Your task to perform on an android device: read, delete, or share a saved page in the chrome app Image 0: 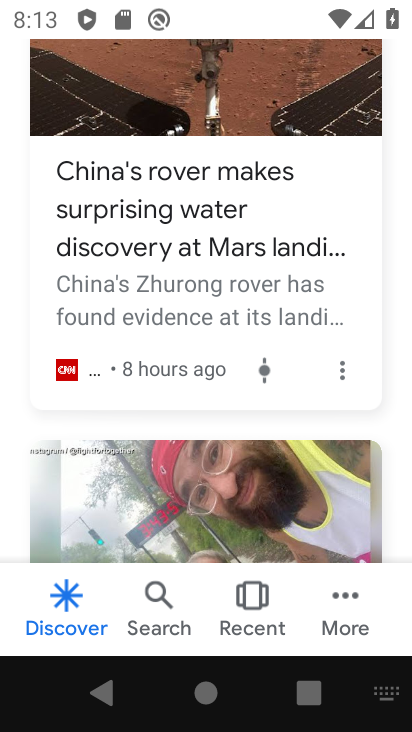
Step 0: click (353, 317)
Your task to perform on an android device: read, delete, or share a saved page in the chrome app Image 1: 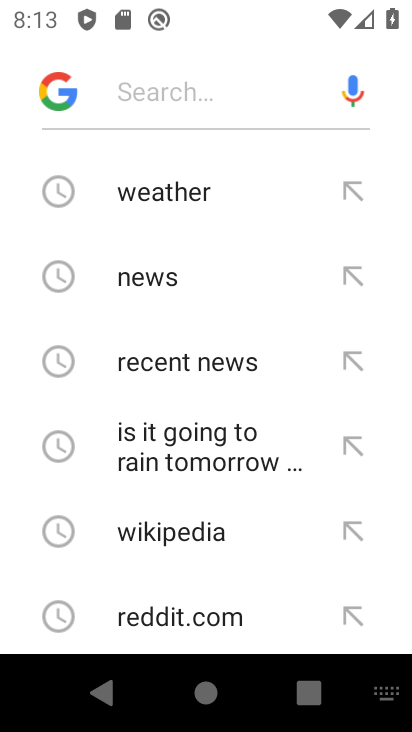
Step 1: click (152, 88)
Your task to perform on an android device: read, delete, or share a saved page in the chrome app Image 2: 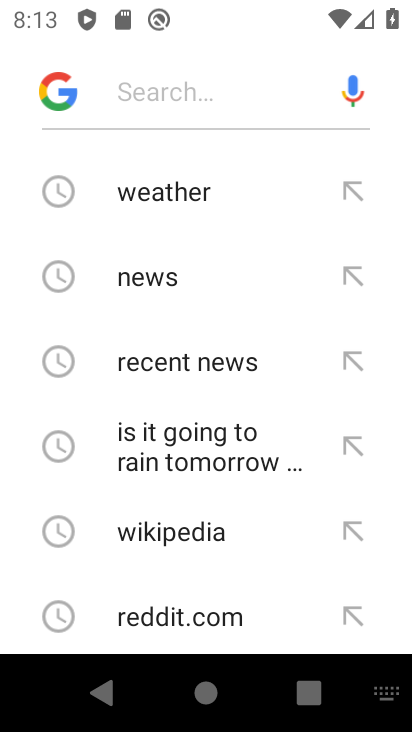
Step 2: click (150, 108)
Your task to perform on an android device: read, delete, or share a saved page in the chrome app Image 3: 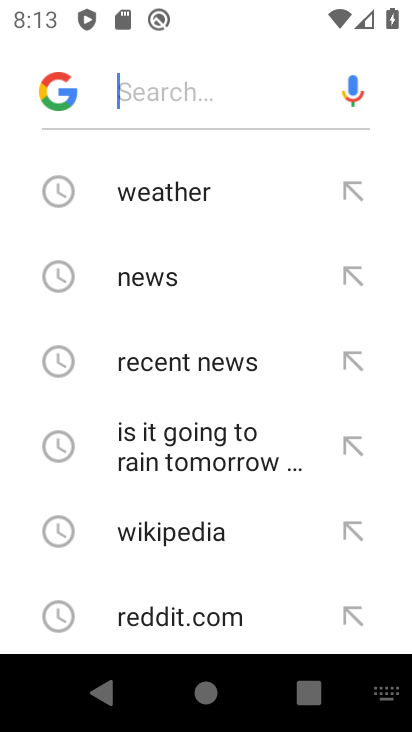
Step 3: click (150, 108)
Your task to perform on an android device: read, delete, or share a saved page in the chrome app Image 4: 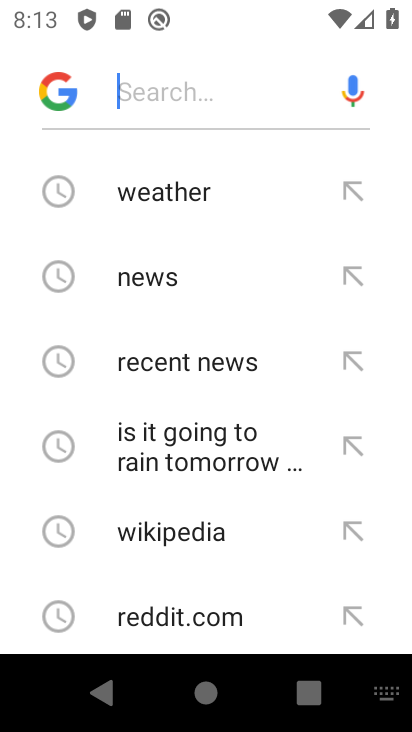
Step 4: click (150, 108)
Your task to perform on an android device: read, delete, or share a saved page in the chrome app Image 5: 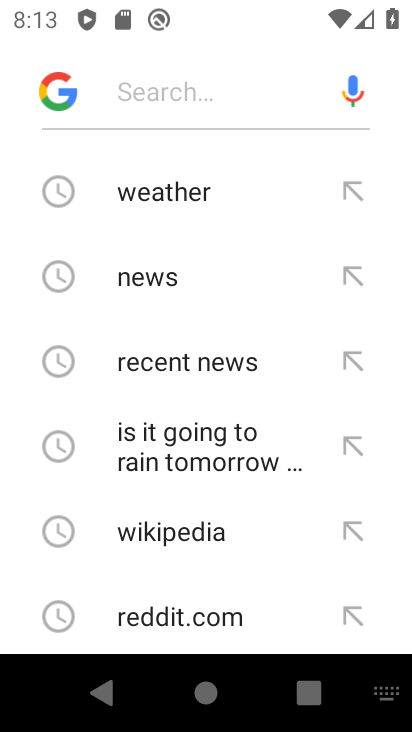
Step 5: click (150, 108)
Your task to perform on an android device: read, delete, or share a saved page in the chrome app Image 6: 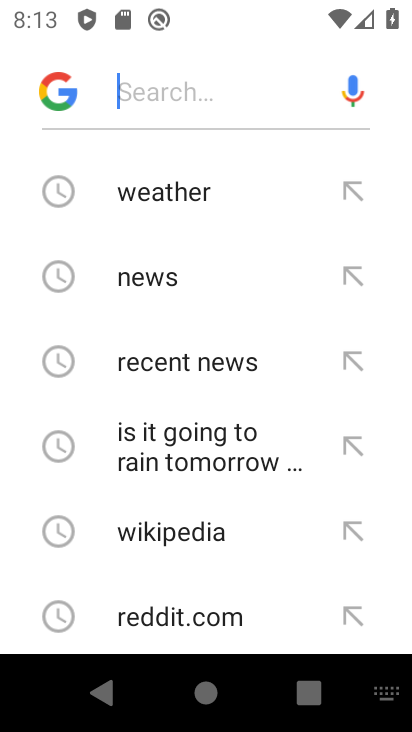
Step 6: press back button
Your task to perform on an android device: read, delete, or share a saved page in the chrome app Image 7: 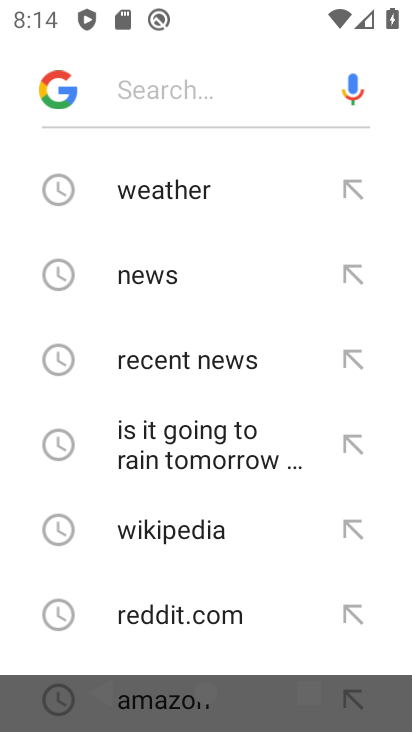
Step 7: press back button
Your task to perform on an android device: read, delete, or share a saved page in the chrome app Image 8: 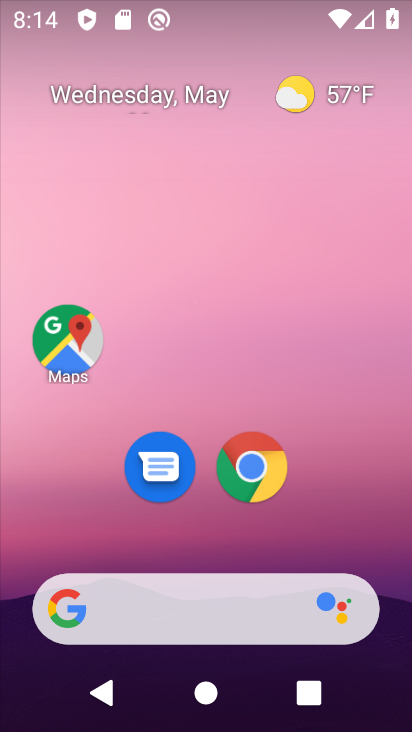
Step 8: drag from (388, 649) to (153, 10)
Your task to perform on an android device: read, delete, or share a saved page in the chrome app Image 9: 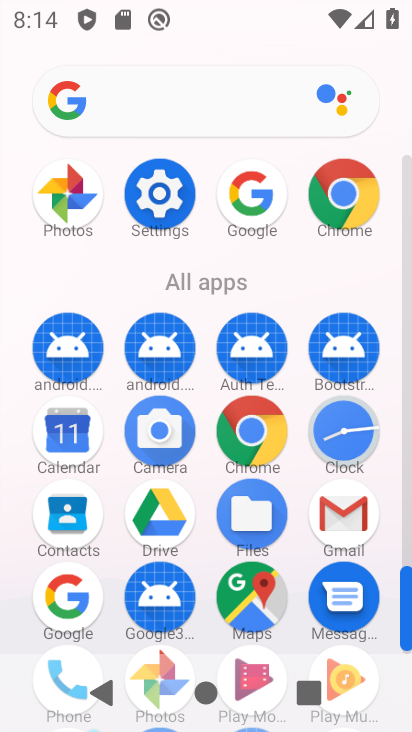
Step 9: click (74, 9)
Your task to perform on an android device: read, delete, or share a saved page in the chrome app Image 10: 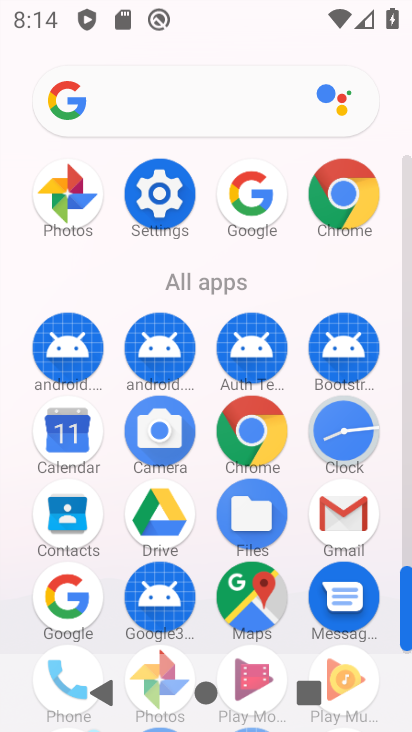
Step 10: drag from (139, 325) to (123, 3)
Your task to perform on an android device: read, delete, or share a saved page in the chrome app Image 11: 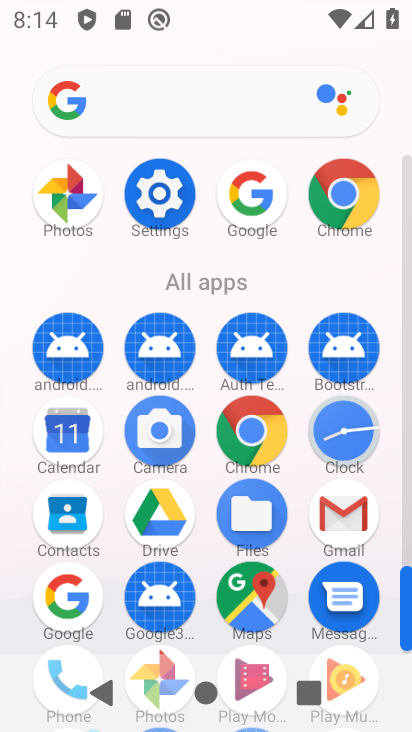
Step 11: click (341, 187)
Your task to perform on an android device: read, delete, or share a saved page in the chrome app Image 12: 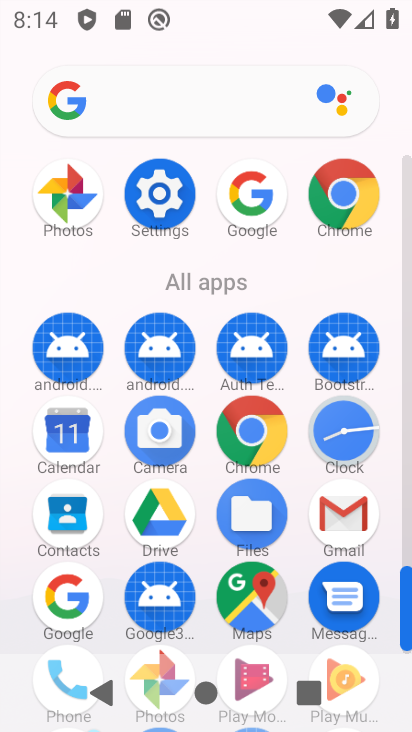
Step 12: click (345, 185)
Your task to perform on an android device: read, delete, or share a saved page in the chrome app Image 13: 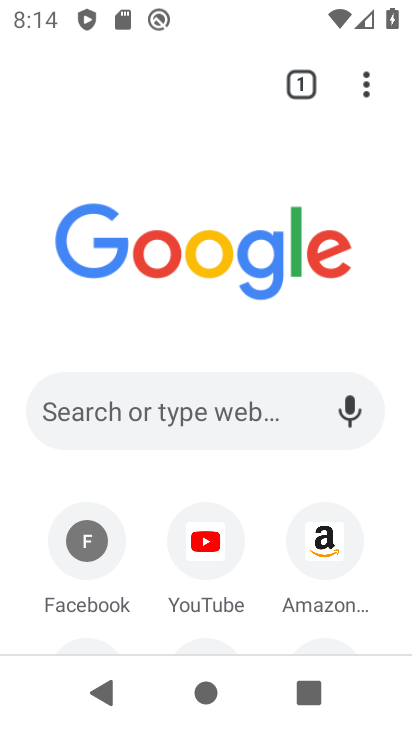
Step 13: click (369, 88)
Your task to perform on an android device: read, delete, or share a saved page in the chrome app Image 14: 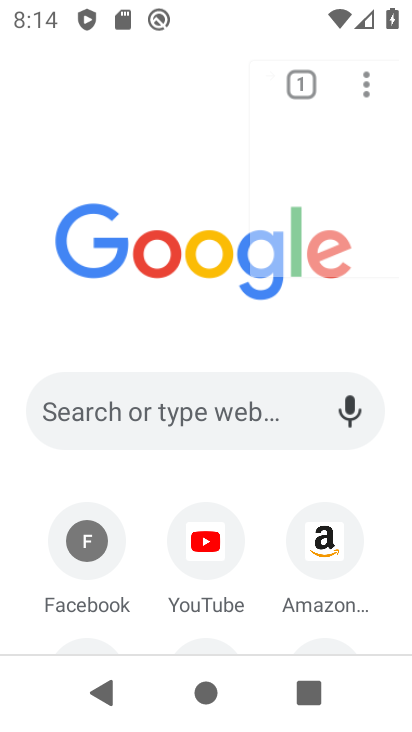
Step 14: drag from (369, 88) to (120, 487)
Your task to perform on an android device: read, delete, or share a saved page in the chrome app Image 15: 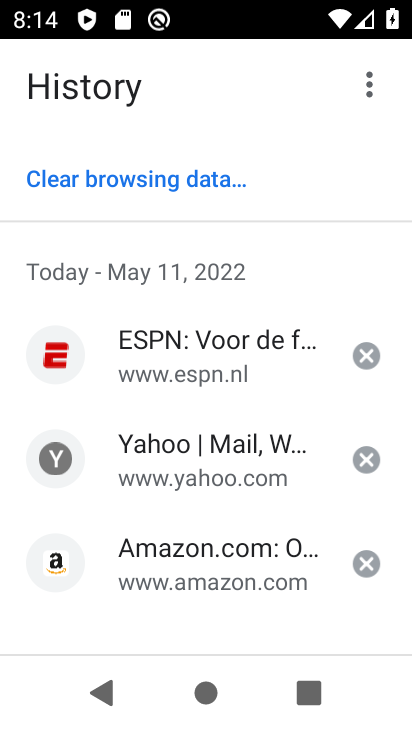
Step 15: click (120, 487)
Your task to perform on an android device: read, delete, or share a saved page in the chrome app Image 16: 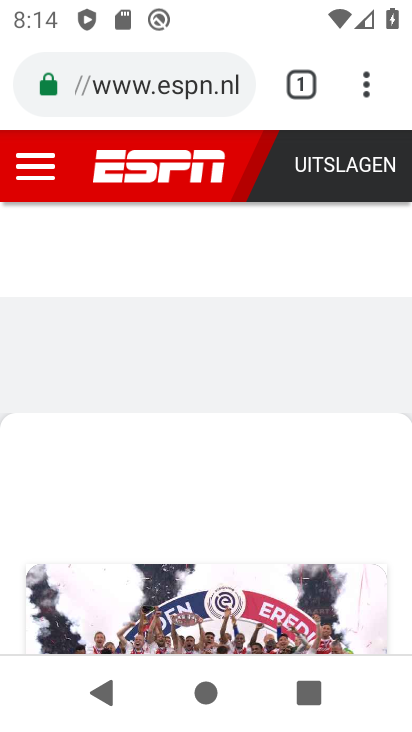
Step 16: drag from (366, 88) to (102, 345)
Your task to perform on an android device: read, delete, or share a saved page in the chrome app Image 17: 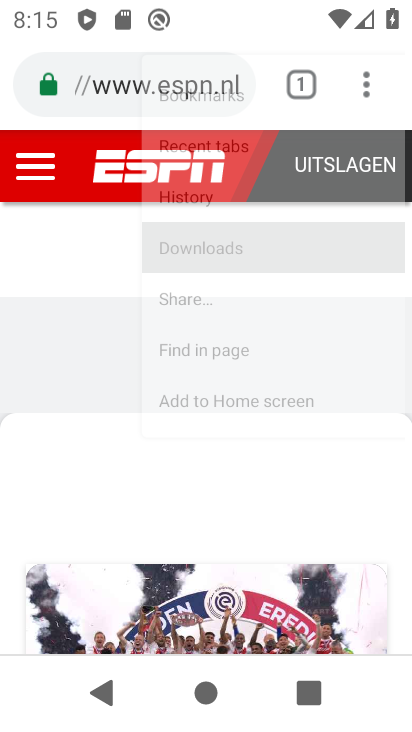
Step 17: click (103, 344)
Your task to perform on an android device: read, delete, or share a saved page in the chrome app Image 18: 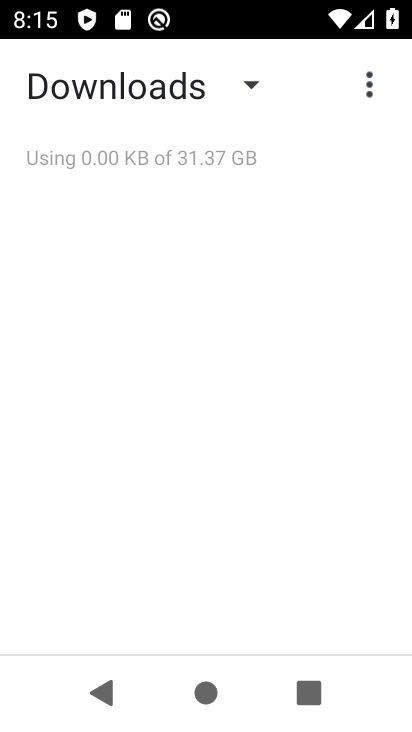
Step 18: click (364, 86)
Your task to perform on an android device: read, delete, or share a saved page in the chrome app Image 19: 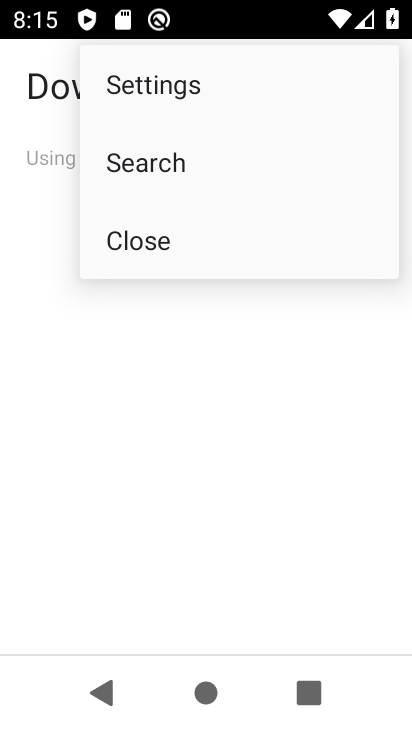
Step 19: click (241, 288)
Your task to perform on an android device: read, delete, or share a saved page in the chrome app Image 20: 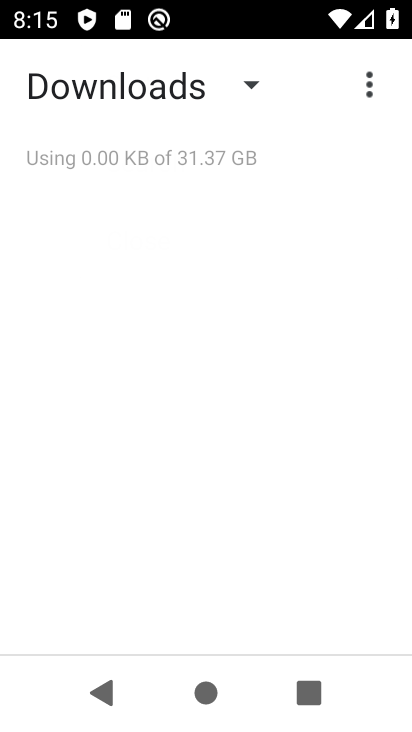
Step 20: click (150, 401)
Your task to perform on an android device: read, delete, or share a saved page in the chrome app Image 21: 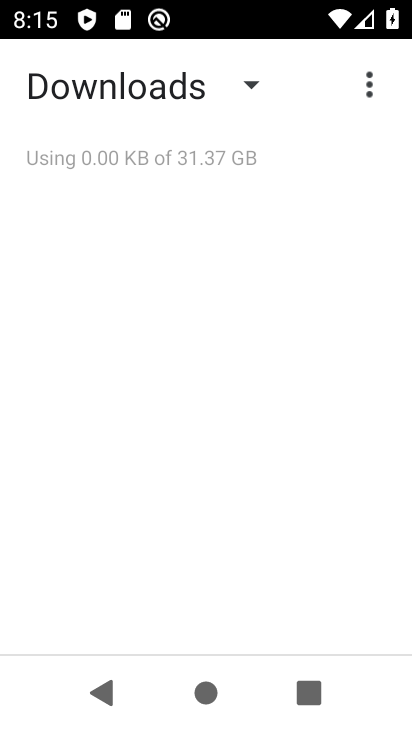
Step 21: click (63, 258)
Your task to perform on an android device: read, delete, or share a saved page in the chrome app Image 22: 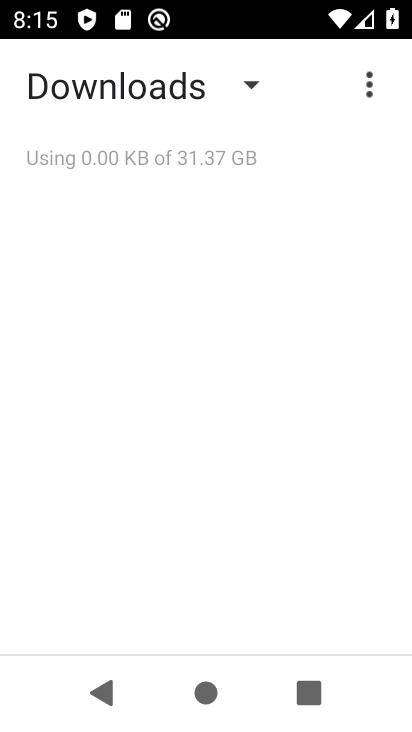
Step 22: click (238, 77)
Your task to perform on an android device: read, delete, or share a saved page in the chrome app Image 23: 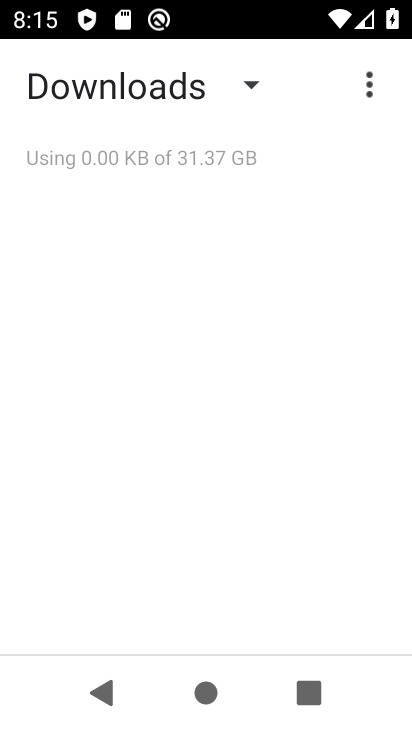
Step 23: click (238, 77)
Your task to perform on an android device: read, delete, or share a saved page in the chrome app Image 24: 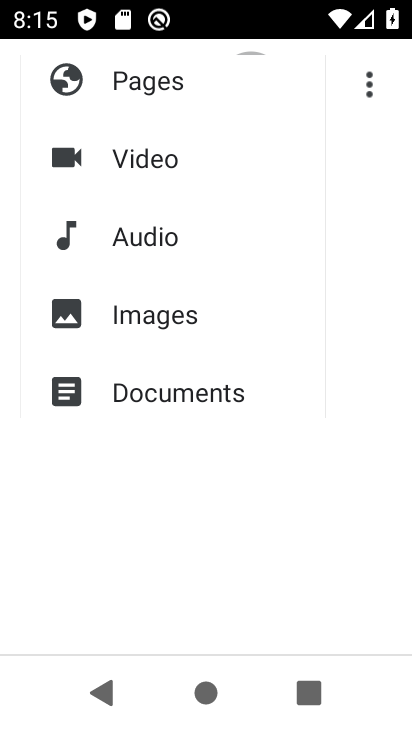
Step 24: click (239, 77)
Your task to perform on an android device: read, delete, or share a saved page in the chrome app Image 25: 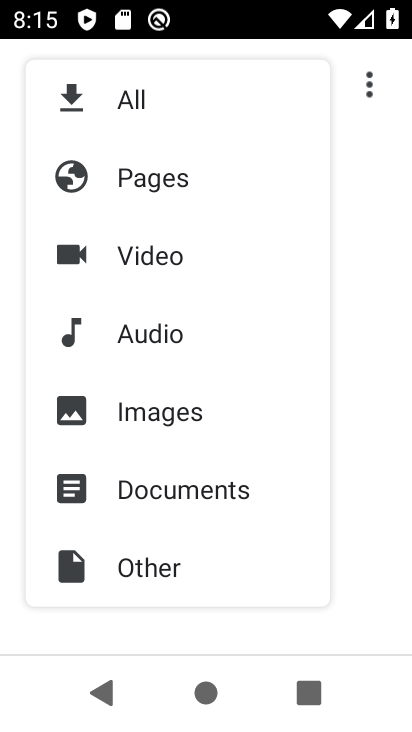
Step 25: click (147, 184)
Your task to perform on an android device: read, delete, or share a saved page in the chrome app Image 26: 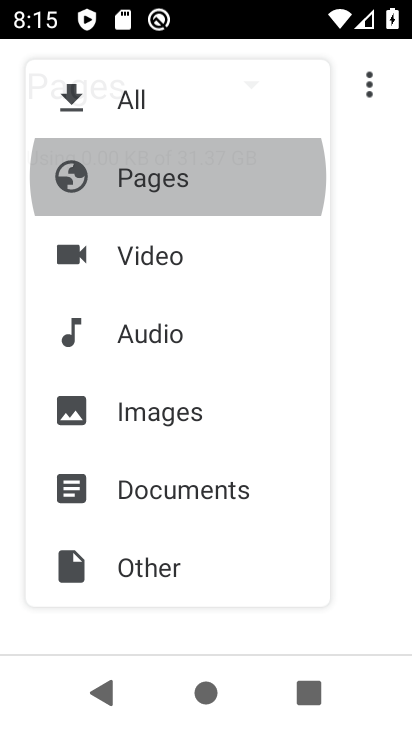
Step 26: click (147, 183)
Your task to perform on an android device: read, delete, or share a saved page in the chrome app Image 27: 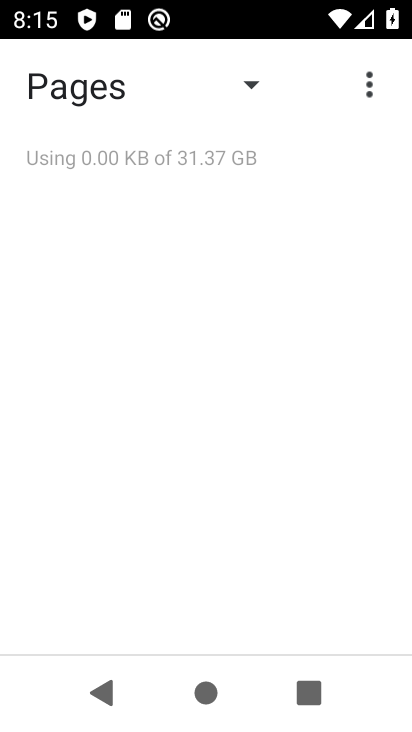
Step 27: click (147, 183)
Your task to perform on an android device: read, delete, or share a saved page in the chrome app Image 28: 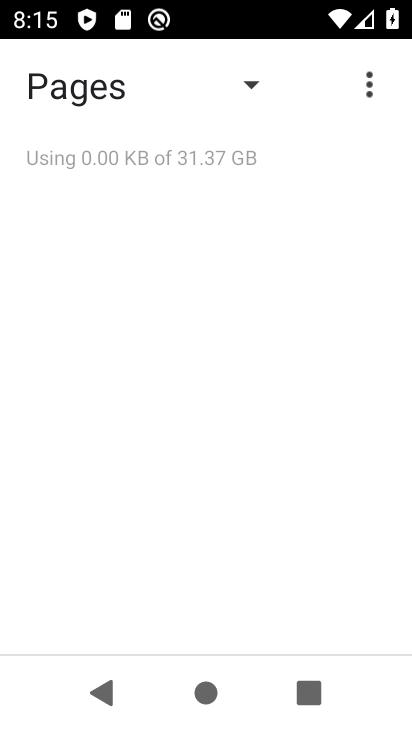
Step 28: task complete